Your task to perform on an android device: View the shopping cart on amazon. Search for dell xps on amazon, select the first entry, and add it to the cart. Image 0: 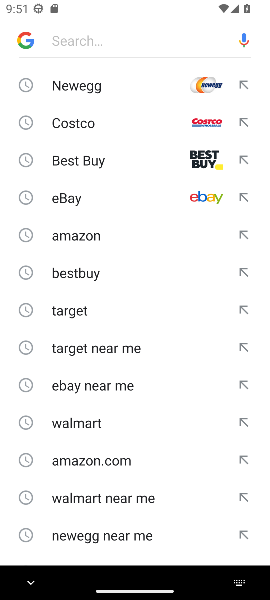
Step 0: type "amazon.com"
Your task to perform on an android device: View the shopping cart on amazon. Search for dell xps on amazon, select the first entry, and add it to the cart. Image 1: 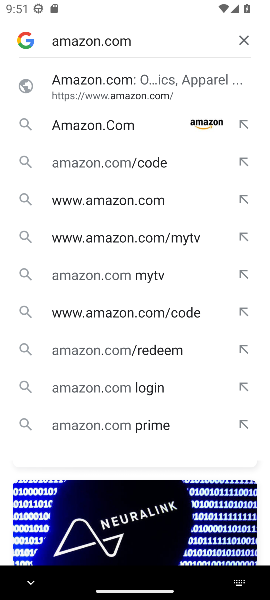
Step 1: click (81, 99)
Your task to perform on an android device: View the shopping cart on amazon. Search for dell xps on amazon, select the first entry, and add it to the cart. Image 2: 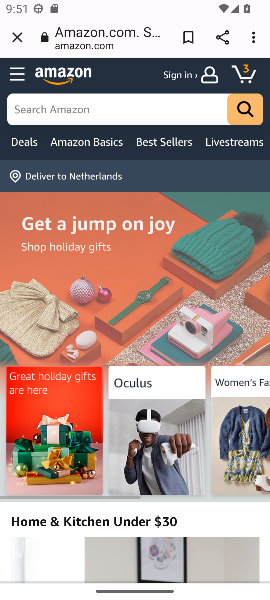
Step 2: click (245, 76)
Your task to perform on an android device: View the shopping cart on amazon. Search for dell xps on amazon, select the first entry, and add it to the cart. Image 3: 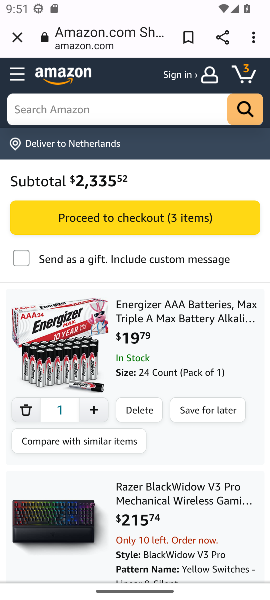
Step 3: drag from (201, 391) to (211, 219)
Your task to perform on an android device: View the shopping cart on amazon. Search for dell xps on amazon, select the first entry, and add it to the cart. Image 4: 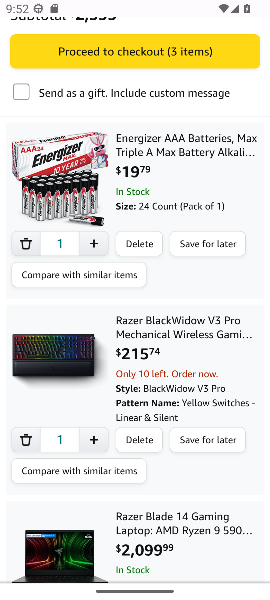
Step 4: drag from (179, 151) to (175, 386)
Your task to perform on an android device: View the shopping cart on amazon. Search for dell xps on amazon, select the first entry, and add it to the cart. Image 5: 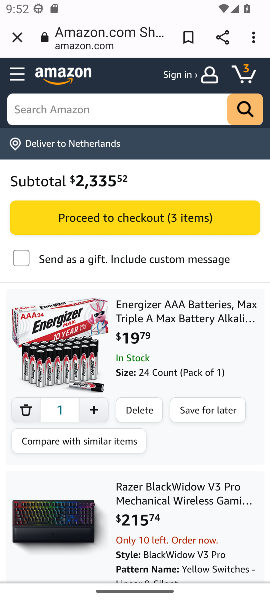
Step 5: click (66, 111)
Your task to perform on an android device: View the shopping cart on amazon. Search for dell xps on amazon, select the first entry, and add it to the cart. Image 6: 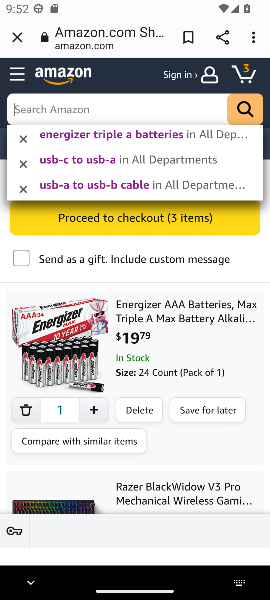
Step 6: type "dell xps "
Your task to perform on an android device: View the shopping cart on amazon. Search for dell xps on amazon, select the first entry, and add it to the cart. Image 7: 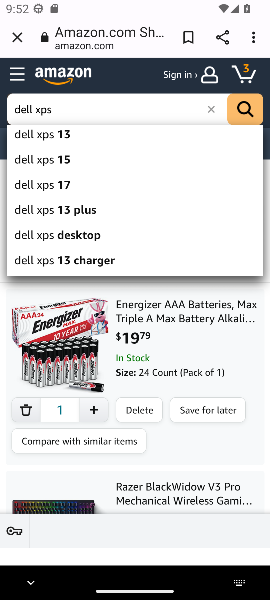
Step 7: click (250, 111)
Your task to perform on an android device: View the shopping cart on amazon. Search for dell xps on amazon, select the first entry, and add it to the cart. Image 8: 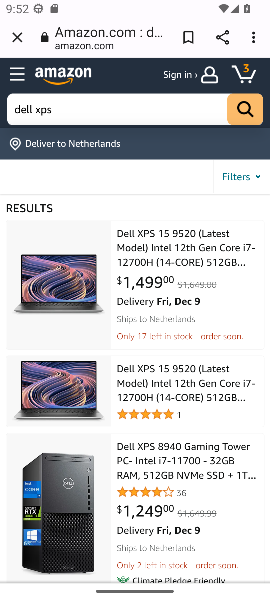
Step 8: click (171, 259)
Your task to perform on an android device: View the shopping cart on amazon. Search for dell xps on amazon, select the first entry, and add it to the cart. Image 9: 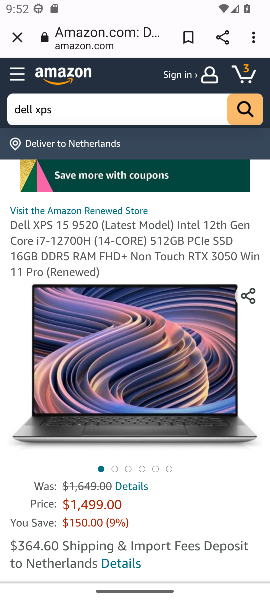
Step 9: drag from (96, 399) to (108, 278)
Your task to perform on an android device: View the shopping cart on amazon. Search for dell xps on amazon, select the first entry, and add it to the cart. Image 10: 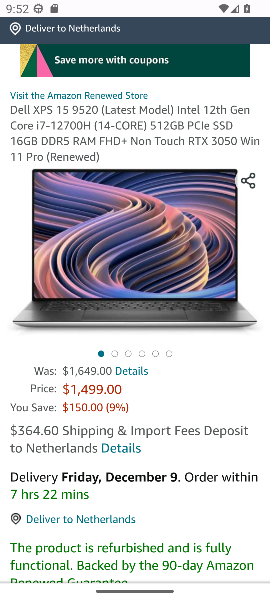
Step 10: drag from (138, 475) to (136, 315)
Your task to perform on an android device: View the shopping cart on amazon. Search for dell xps on amazon, select the first entry, and add it to the cart. Image 11: 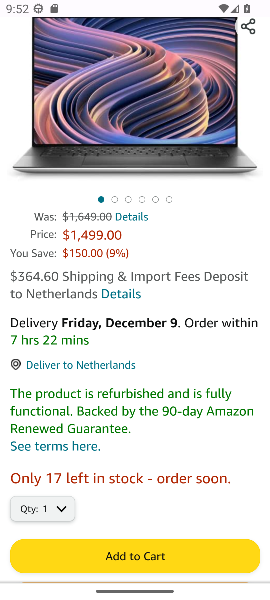
Step 11: drag from (125, 454) to (141, 335)
Your task to perform on an android device: View the shopping cart on amazon. Search for dell xps on amazon, select the first entry, and add it to the cart. Image 12: 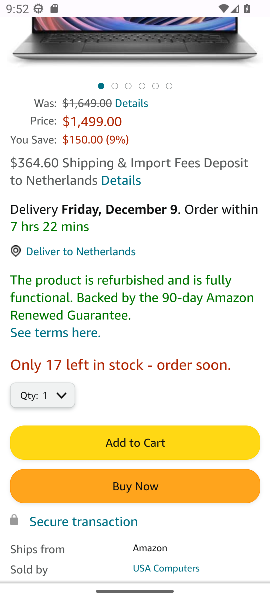
Step 12: click (137, 450)
Your task to perform on an android device: View the shopping cart on amazon. Search for dell xps on amazon, select the first entry, and add it to the cart. Image 13: 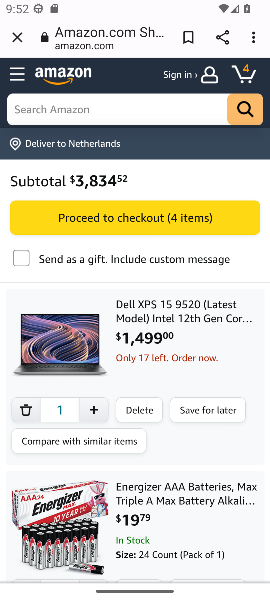
Step 13: task complete